Your task to perform on an android device: see tabs open on other devices in the chrome app Image 0: 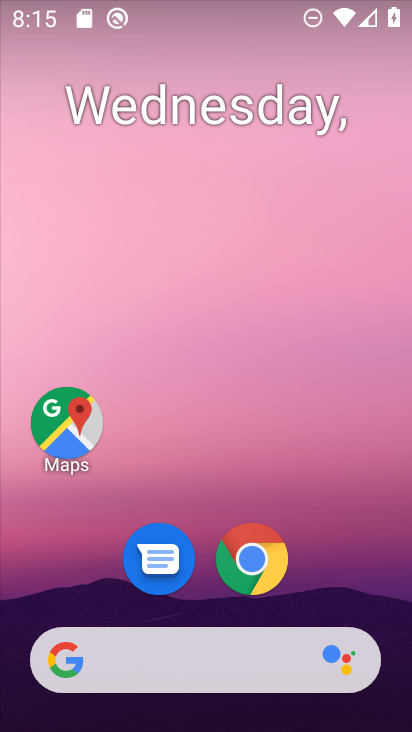
Step 0: click (240, 563)
Your task to perform on an android device: see tabs open on other devices in the chrome app Image 1: 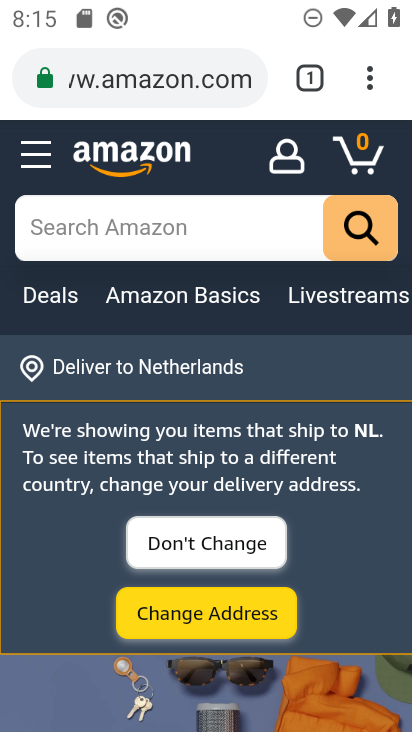
Step 1: task complete